Your task to perform on an android device: turn off notifications in google photos Image 0: 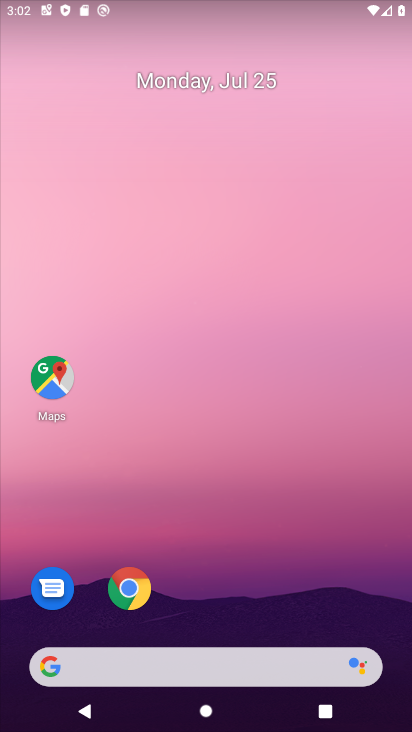
Step 0: drag from (252, 540) to (217, 212)
Your task to perform on an android device: turn off notifications in google photos Image 1: 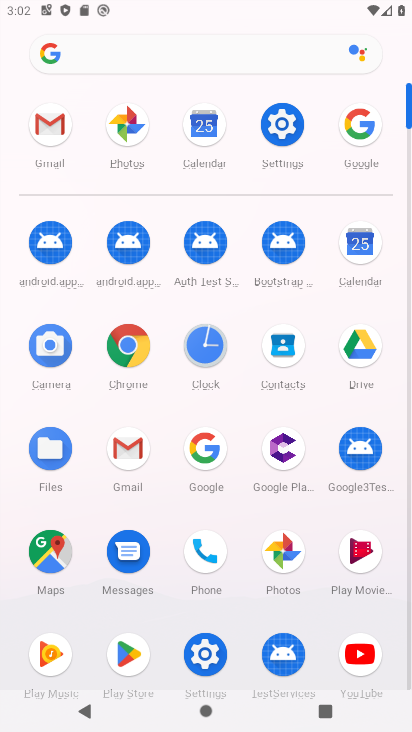
Step 1: click (286, 558)
Your task to perform on an android device: turn off notifications in google photos Image 2: 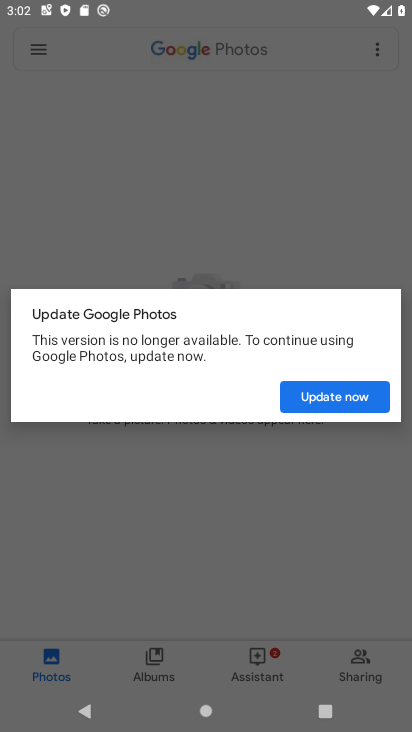
Step 2: click (338, 398)
Your task to perform on an android device: turn off notifications in google photos Image 3: 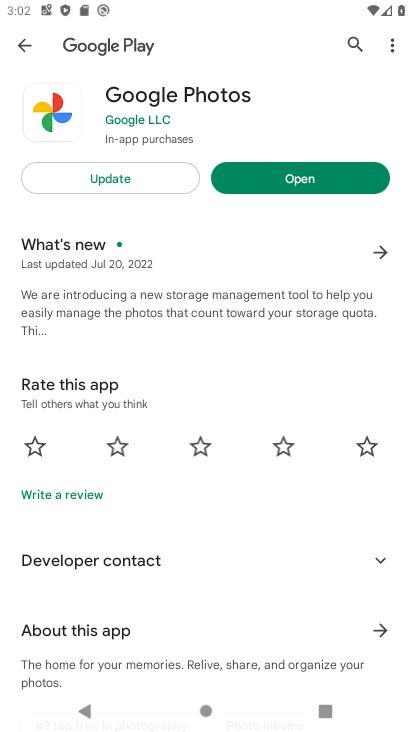
Step 3: click (305, 188)
Your task to perform on an android device: turn off notifications in google photos Image 4: 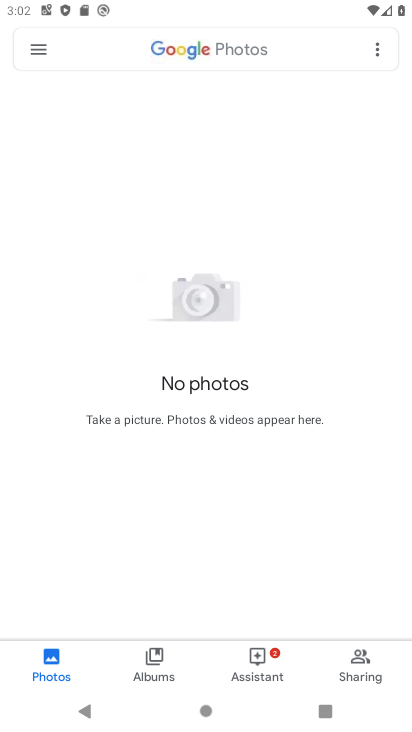
Step 4: click (52, 51)
Your task to perform on an android device: turn off notifications in google photos Image 5: 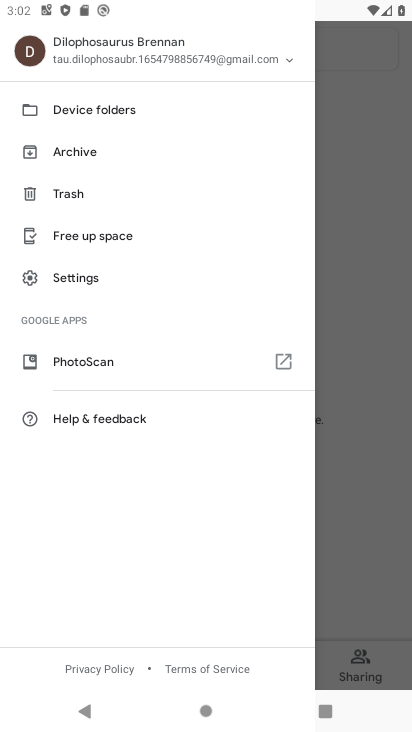
Step 5: click (85, 284)
Your task to perform on an android device: turn off notifications in google photos Image 6: 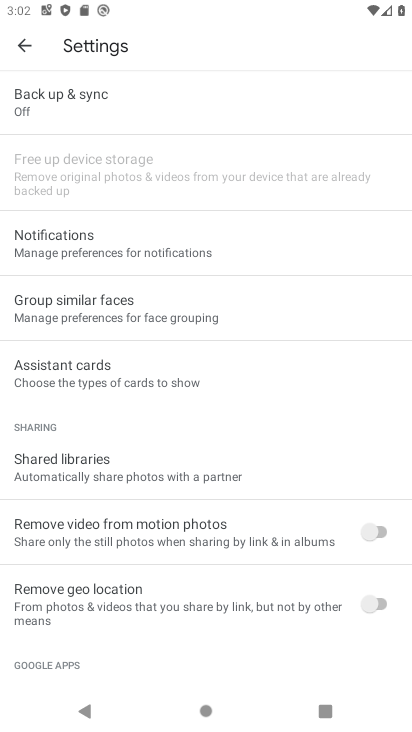
Step 6: drag from (221, 602) to (209, 309)
Your task to perform on an android device: turn off notifications in google photos Image 7: 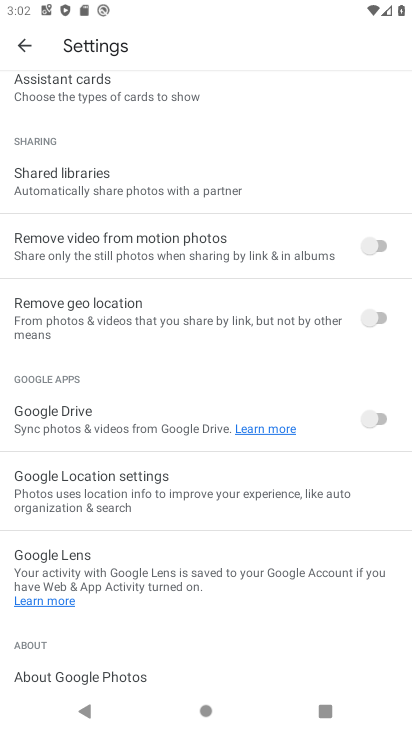
Step 7: drag from (207, 573) to (211, 248)
Your task to perform on an android device: turn off notifications in google photos Image 8: 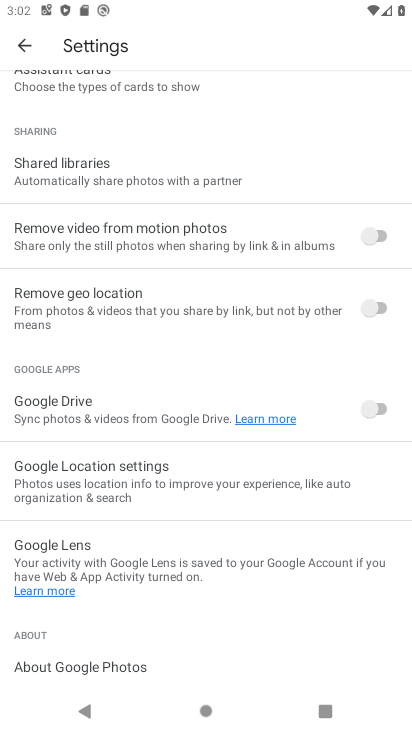
Step 8: drag from (210, 336) to (210, 627)
Your task to perform on an android device: turn off notifications in google photos Image 9: 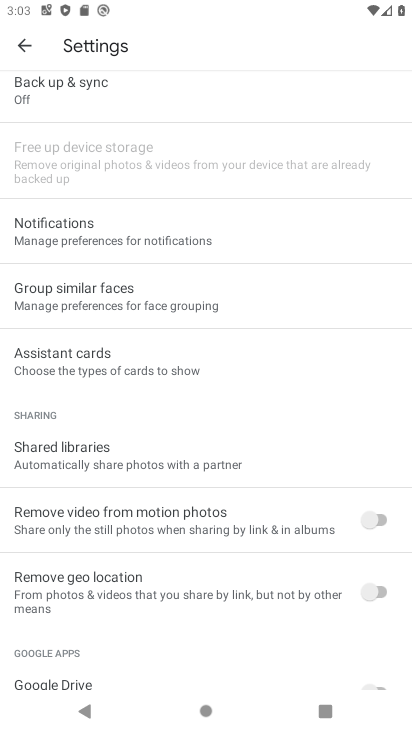
Step 9: drag from (167, 317) to (178, 381)
Your task to perform on an android device: turn off notifications in google photos Image 10: 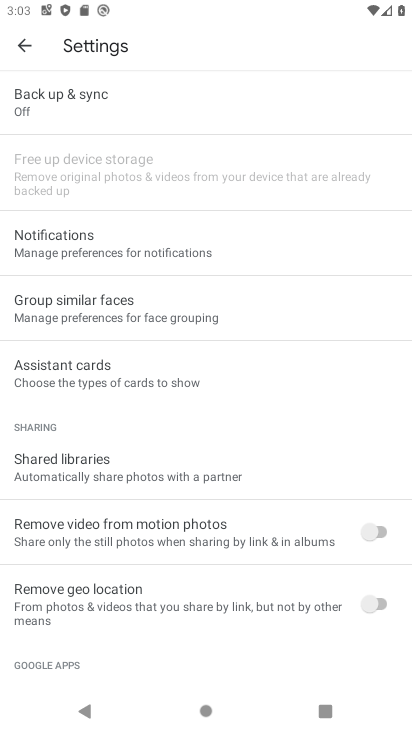
Step 10: click (139, 266)
Your task to perform on an android device: turn off notifications in google photos Image 11: 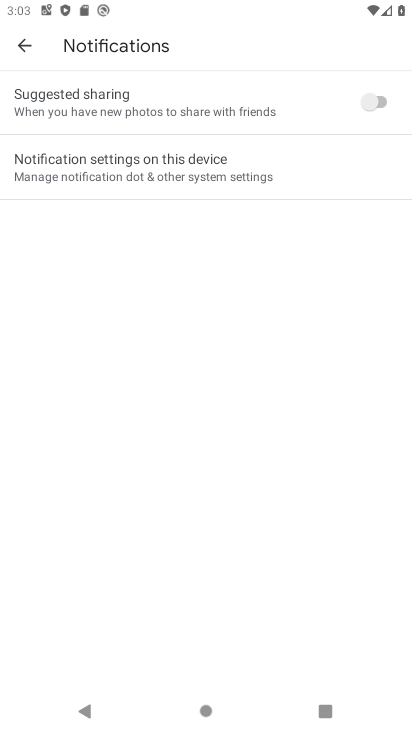
Step 11: click (336, 158)
Your task to perform on an android device: turn off notifications in google photos Image 12: 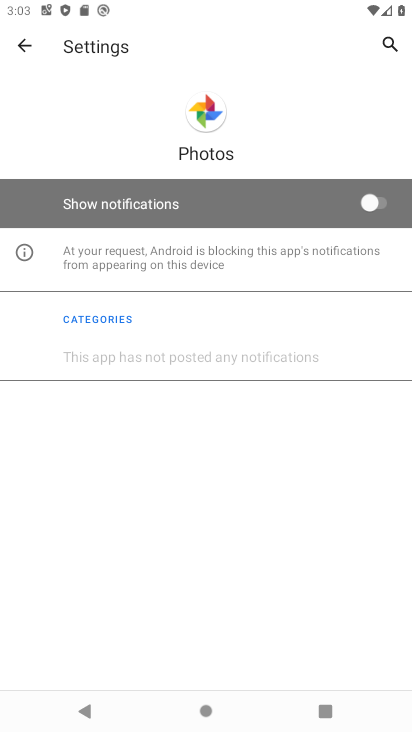
Step 12: task complete